Your task to perform on an android device: find which apps use the phone's location Image 0: 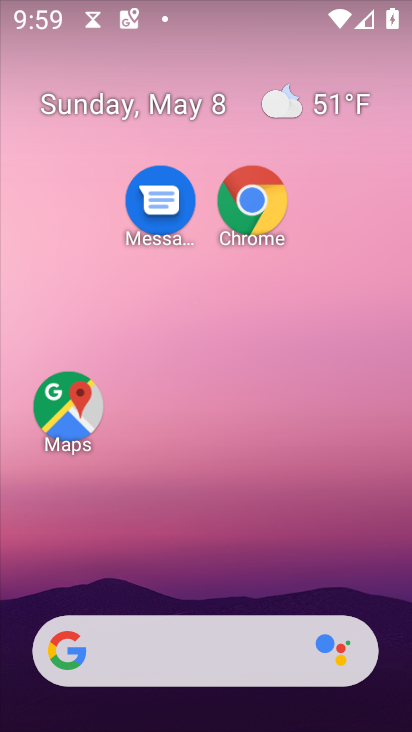
Step 0: drag from (211, 625) to (81, 1)
Your task to perform on an android device: find which apps use the phone's location Image 1: 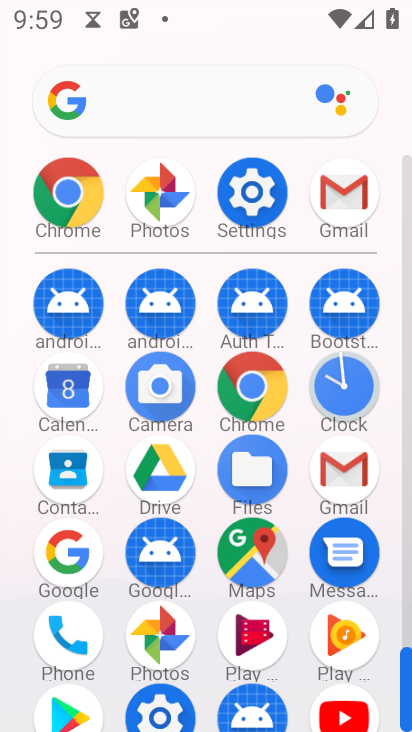
Step 1: click (232, 200)
Your task to perform on an android device: find which apps use the phone's location Image 2: 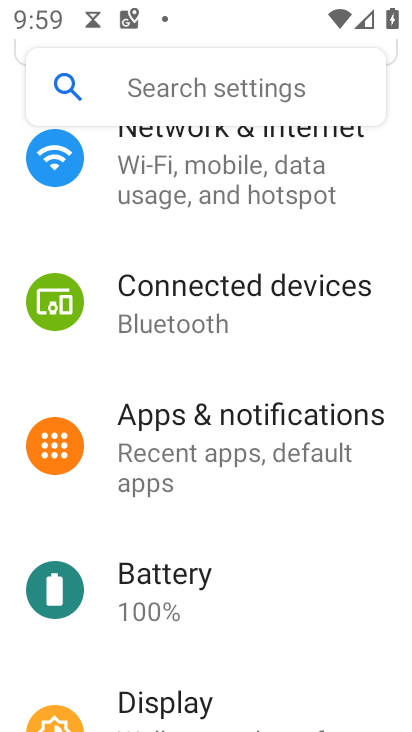
Step 2: drag from (210, 634) to (159, 127)
Your task to perform on an android device: find which apps use the phone's location Image 3: 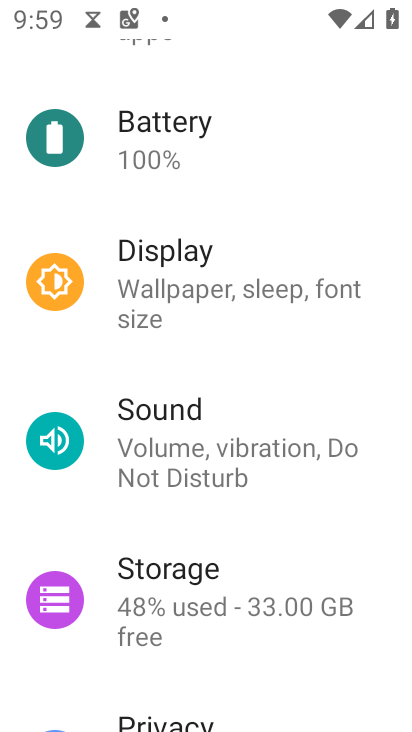
Step 3: drag from (209, 519) to (156, 5)
Your task to perform on an android device: find which apps use the phone's location Image 4: 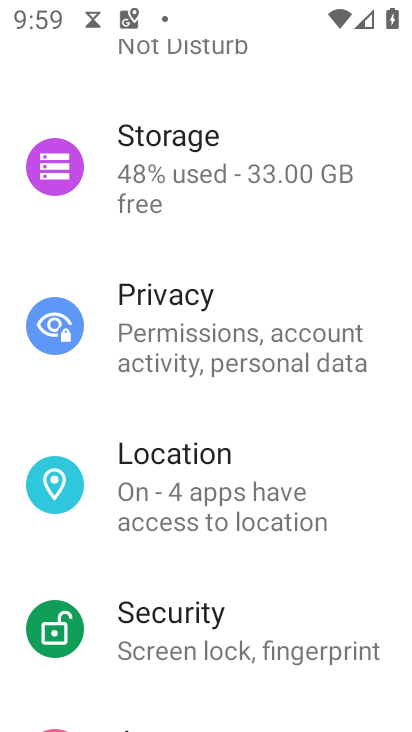
Step 4: click (173, 525)
Your task to perform on an android device: find which apps use the phone's location Image 5: 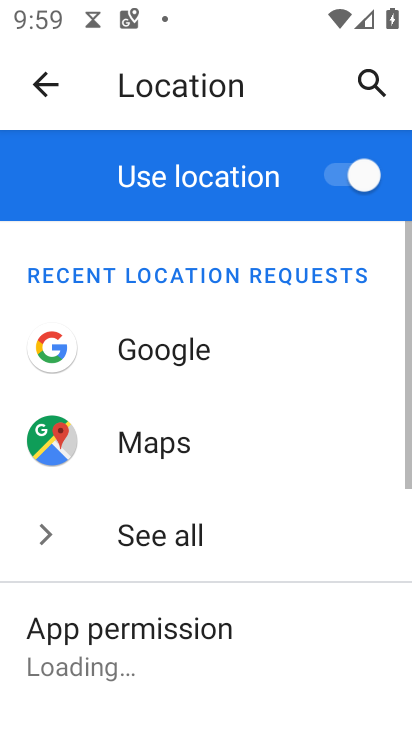
Step 5: click (173, 685)
Your task to perform on an android device: find which apps use the phone's location Image 6: 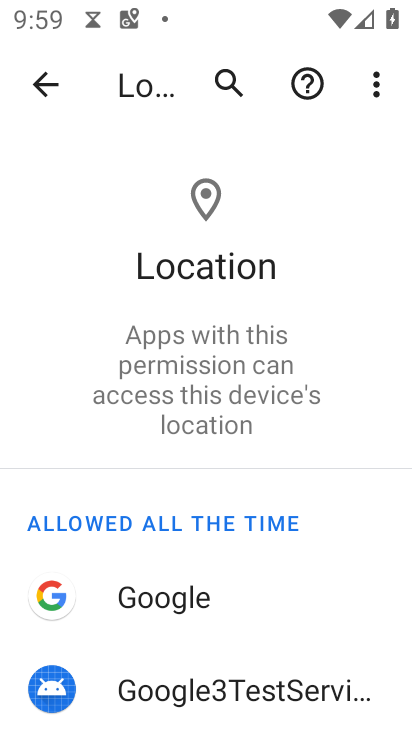
Step 6: task complete